Your task to perform on an android device: install app "Venmo" Image 0: 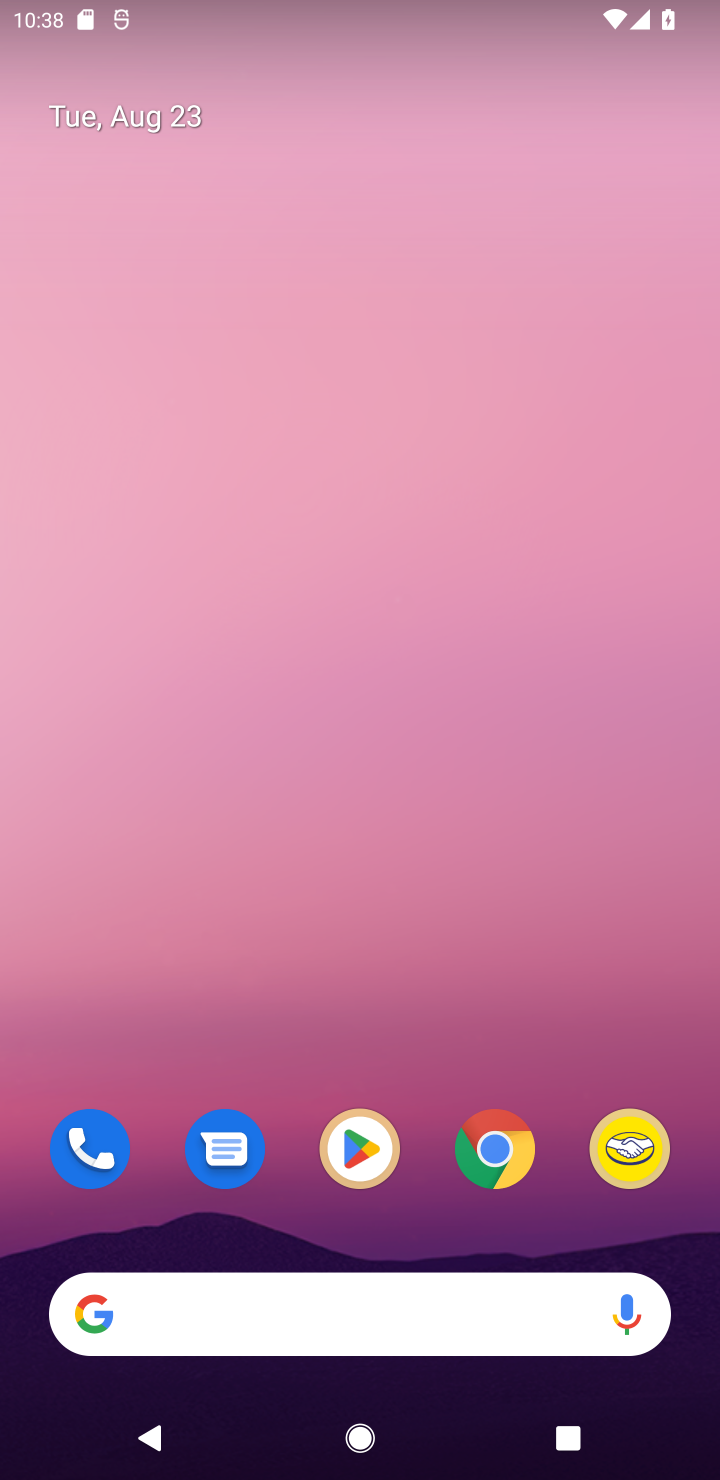
Step 0: click (348, 1174)
Your task to perform on an android device: install app "Venmo" Image 1: 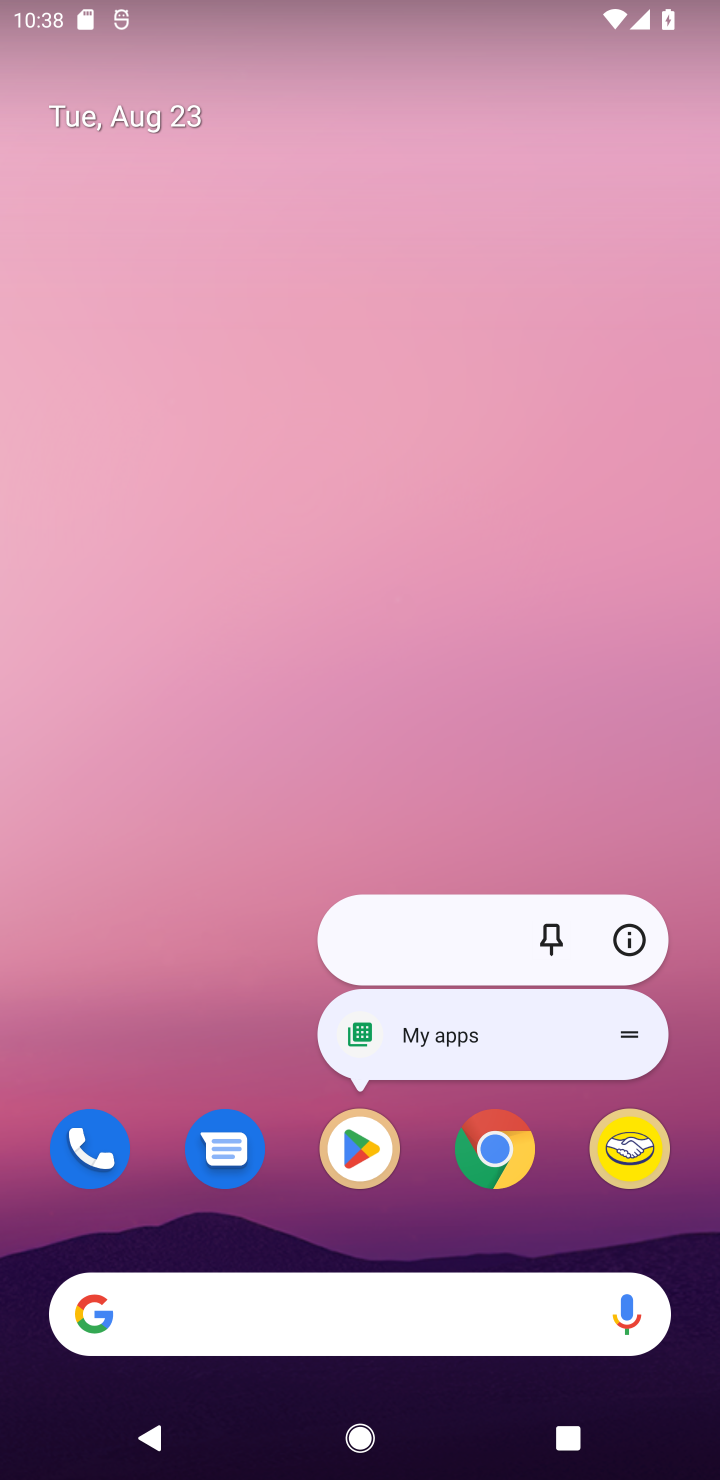
Step 1: click (350, 1128)
Your task to perform on an android device: install app "Venmo" Image 2: 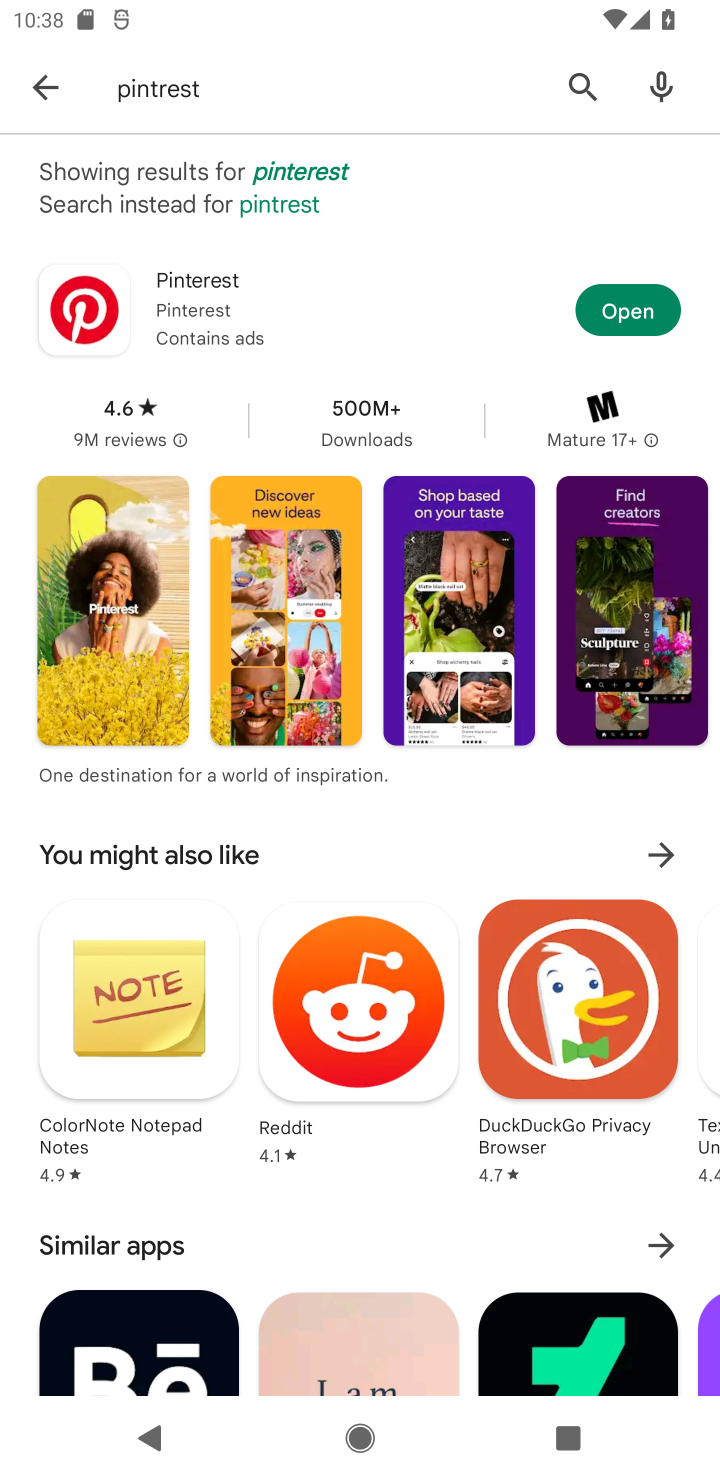
Step 2: click (568, 72)
Your task to perform on an android device: install app "Venmo" Image 3: 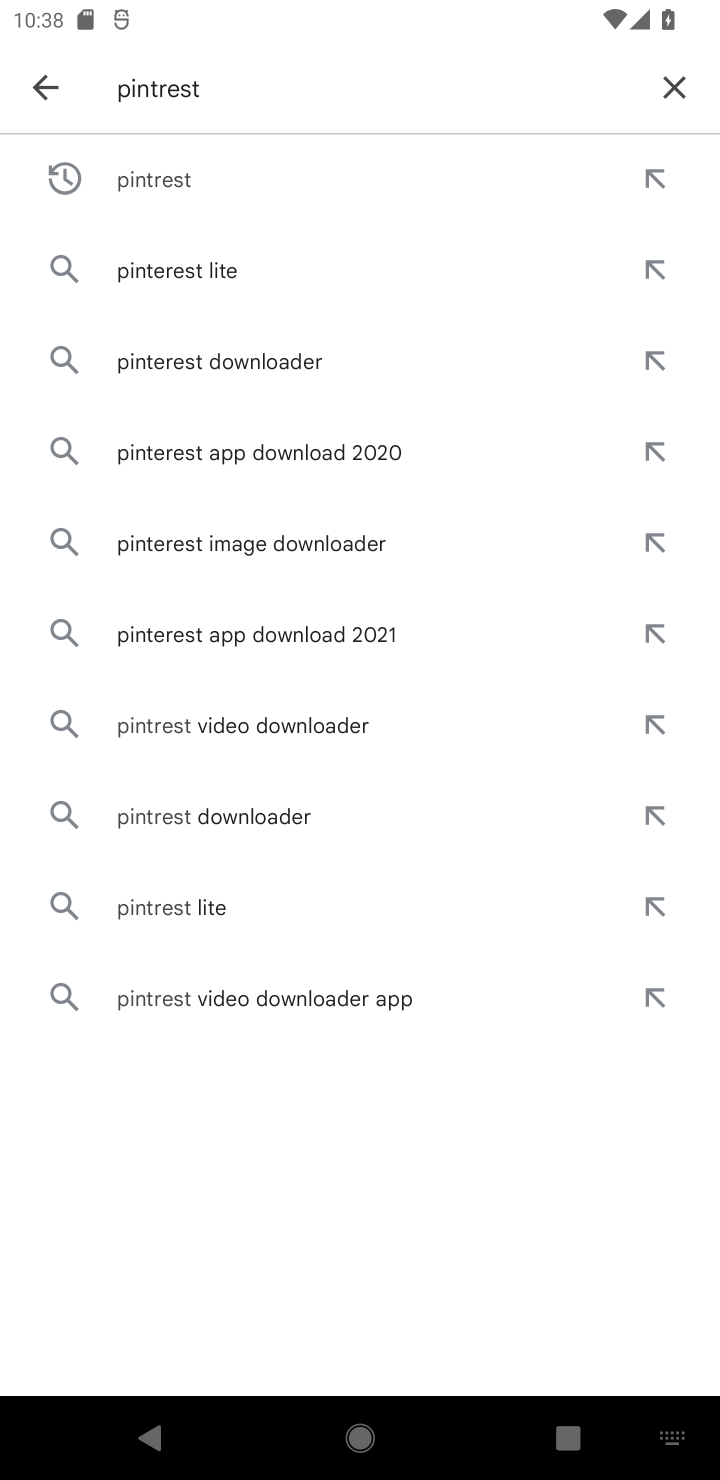
Step 3: click (661, 96)
Your task to perform on an android device: install app "Venmo" Image 4: 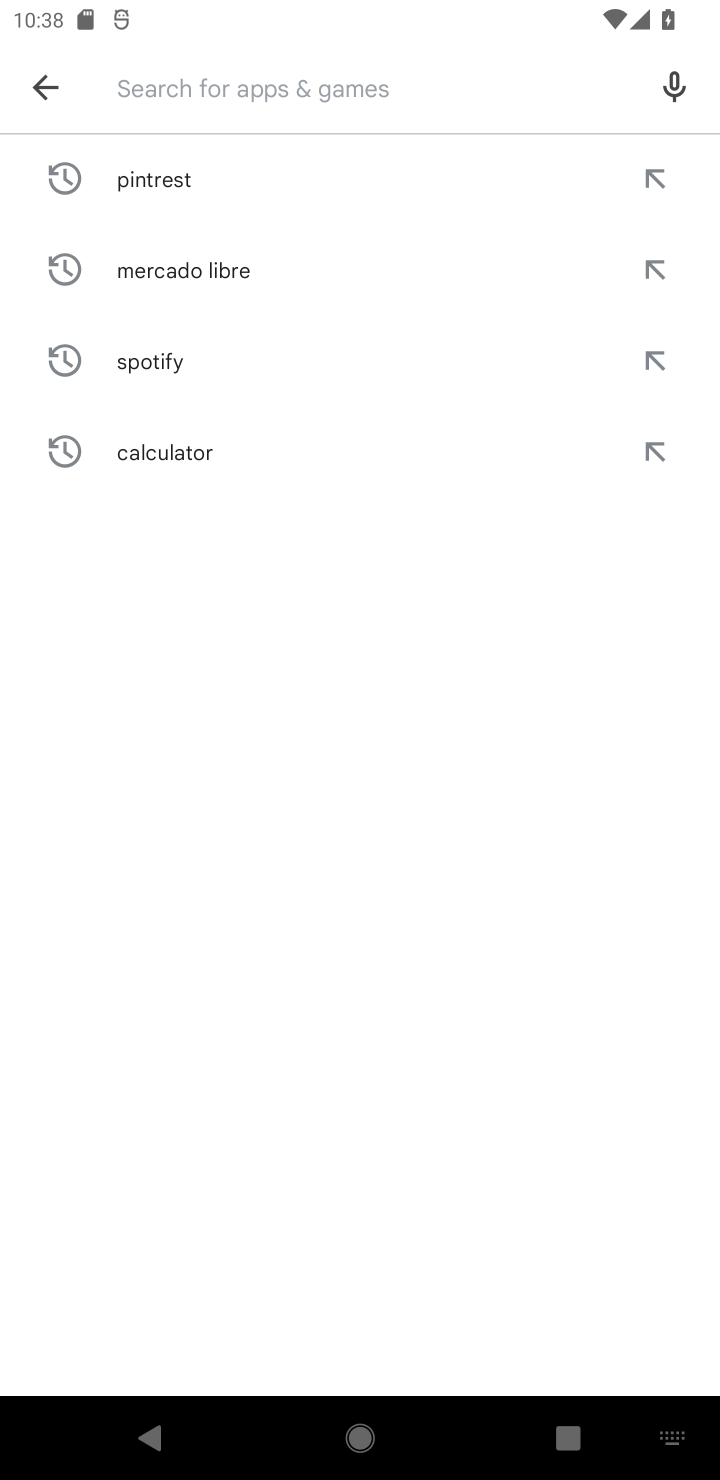
Step 4: type "venmo"
Your task to perform on an android device: install app "Venmo" Image 5: 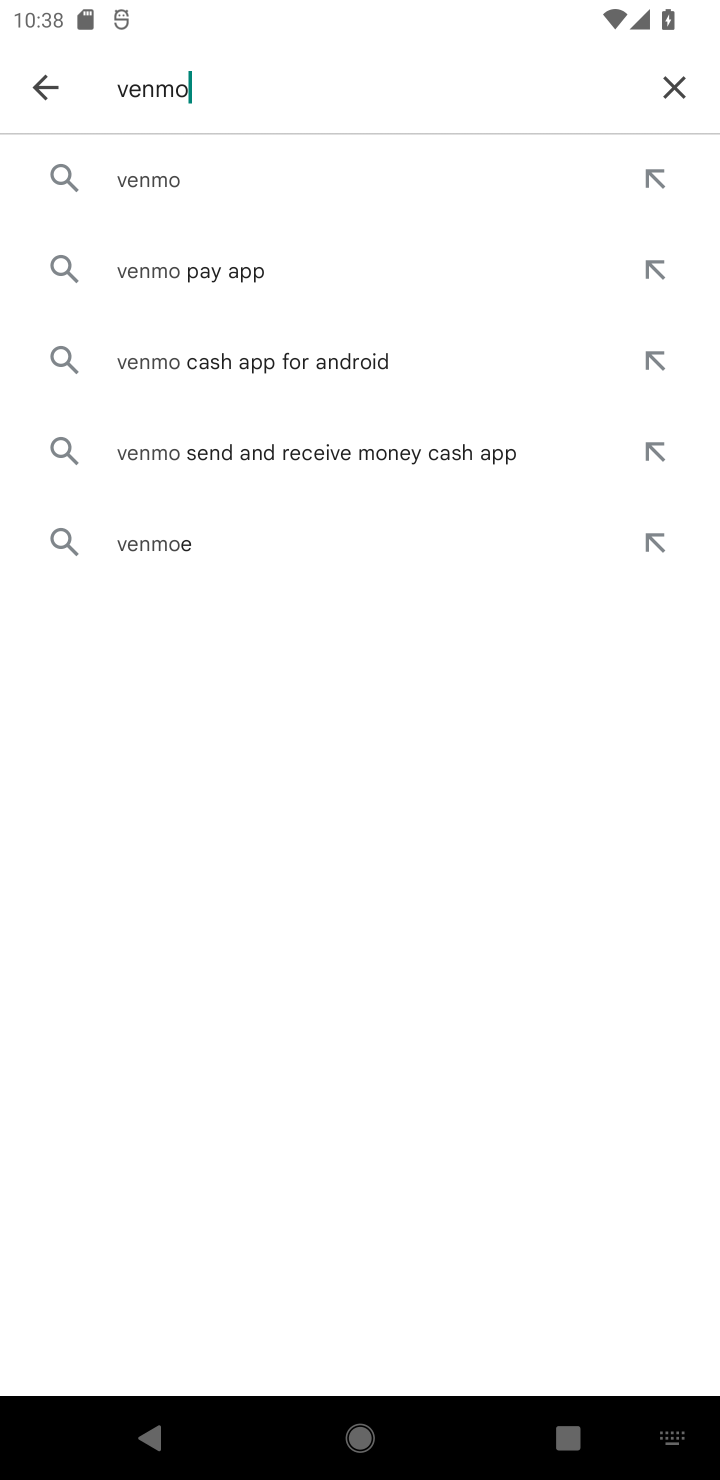
Step 5: click (213, 164)
Your task to perform on an android device: install app "Venmo" Image 6: 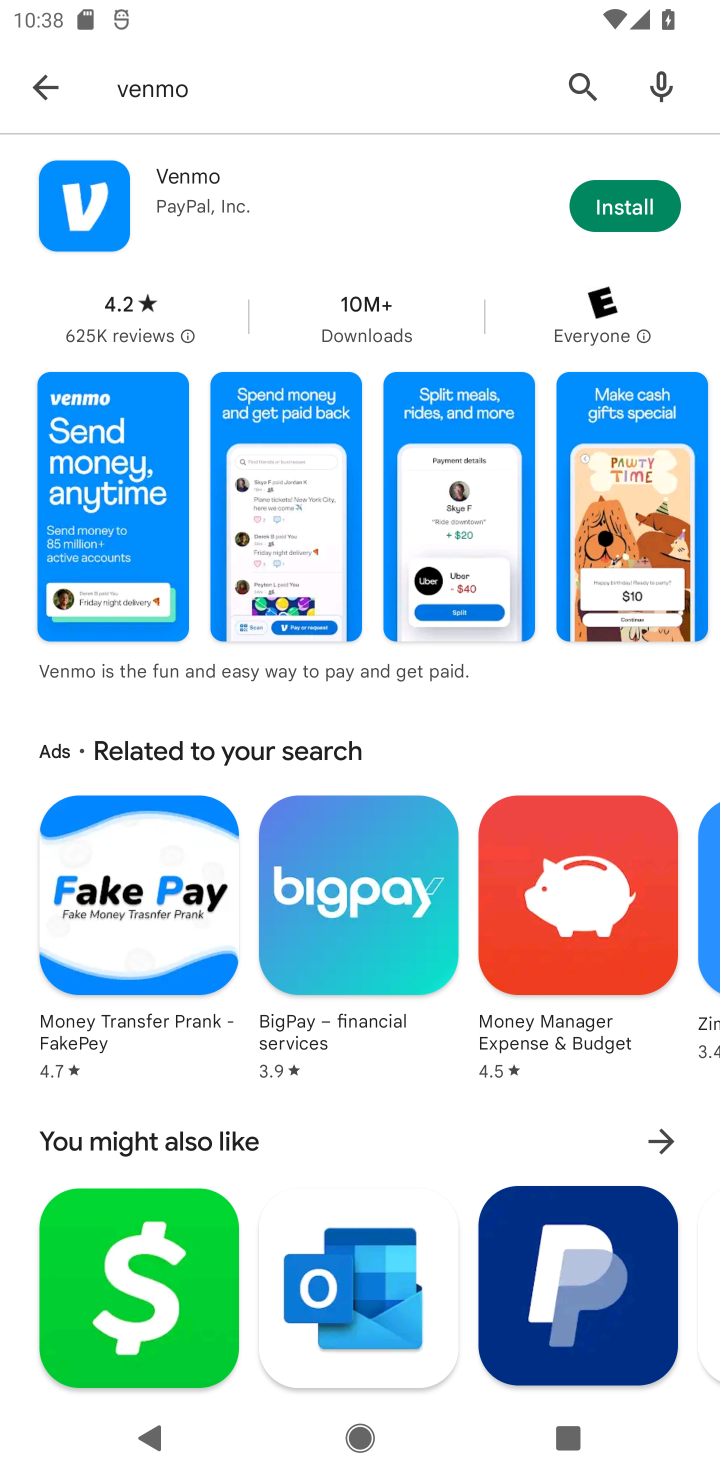
Step 6: task complete